Your task to perform on an android device: Turn on the flashlight Image 0: 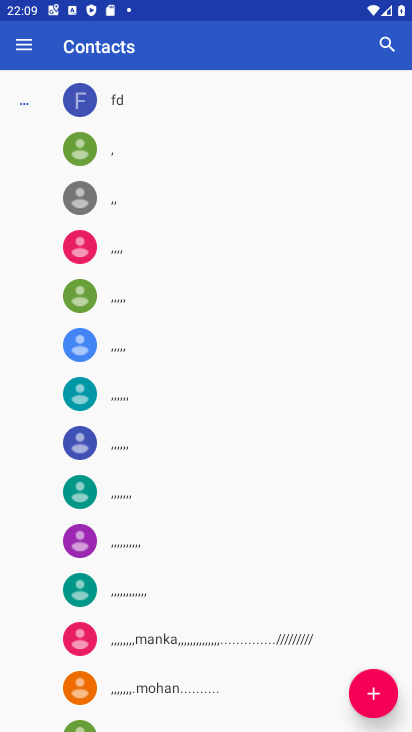
Step 0: press home button
Your task to perform on an android device: Turn on the flashlight Image 1: 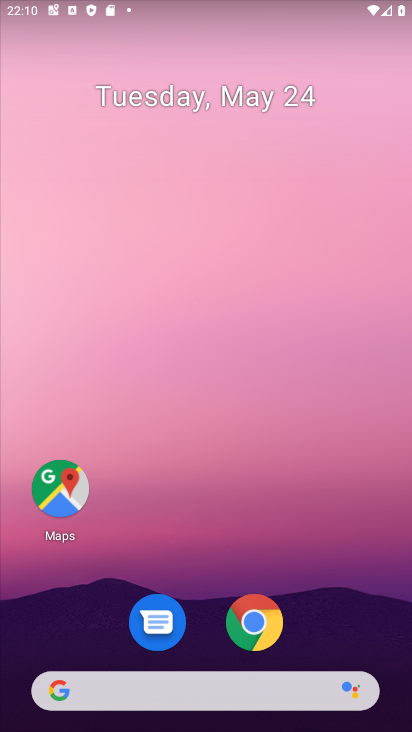
Step 1: drag from (256, 722) to (253, 192)
Your task to perform on an android device: Turn on the flashlight Image 2: 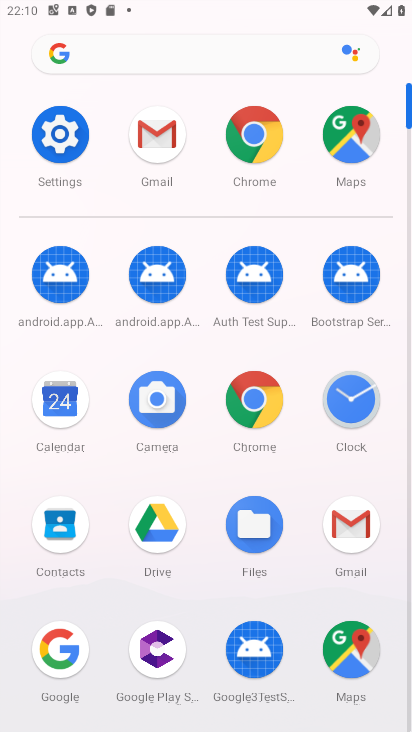
Step 2: click (71, 144)
Your task to perform on an android device: Turn on the flashlight Image 3: 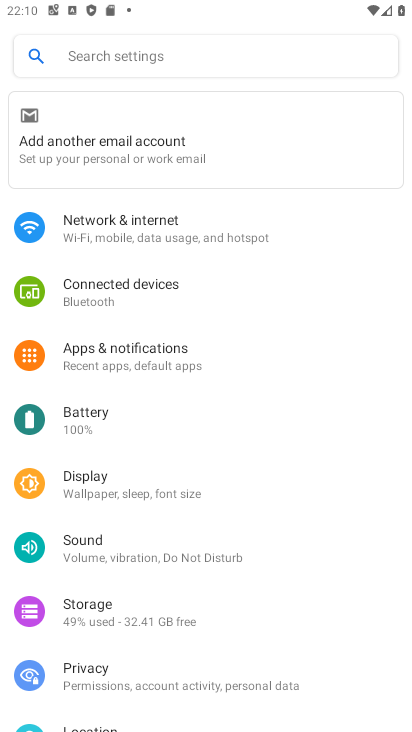
Step 3: click (128, 50)
Your task to perform on an android device: Turn on the flashlight Image 4: 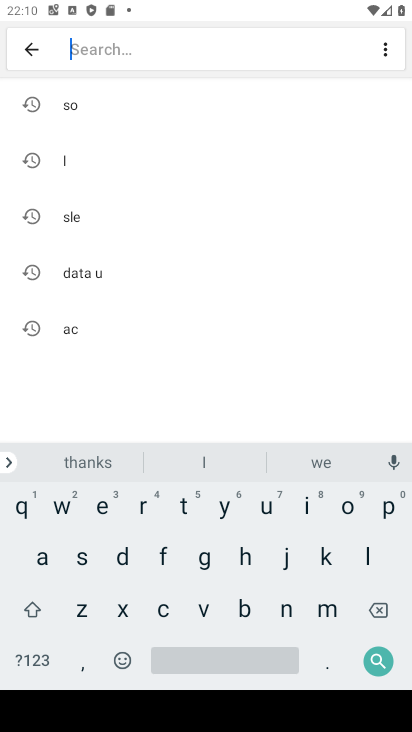
Step 4: click (160, 567)
Your task to perform on an android device: Turn on the flashlight Image 5: 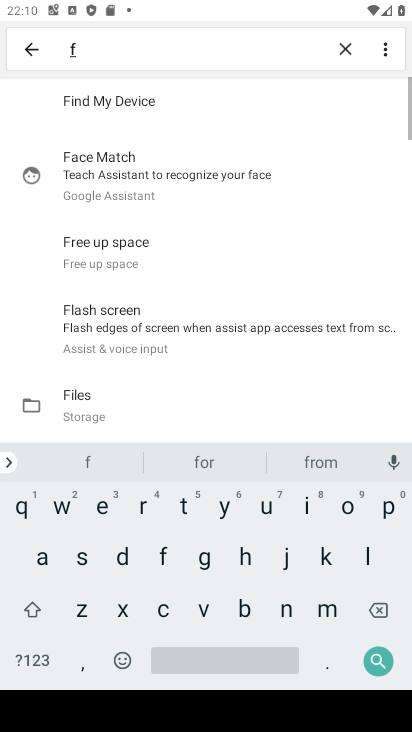
Step 5: click (364, 549)
Your task to perform on an android device: Turn on the flashlight Image 6: 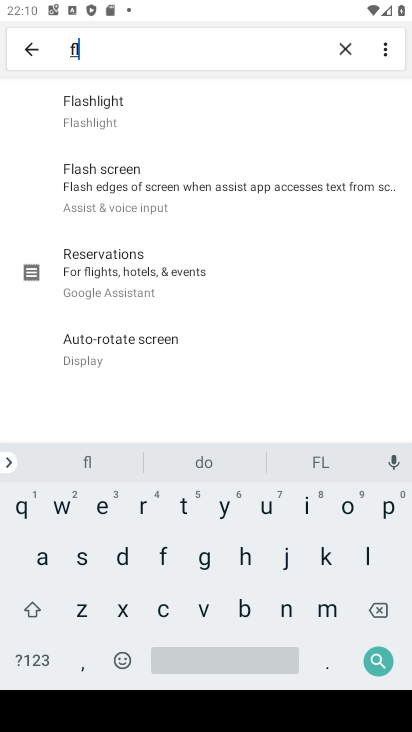
Step 6: click (169, 115)
Your task to perform on an android device: Turn on the flashlight Image 7: 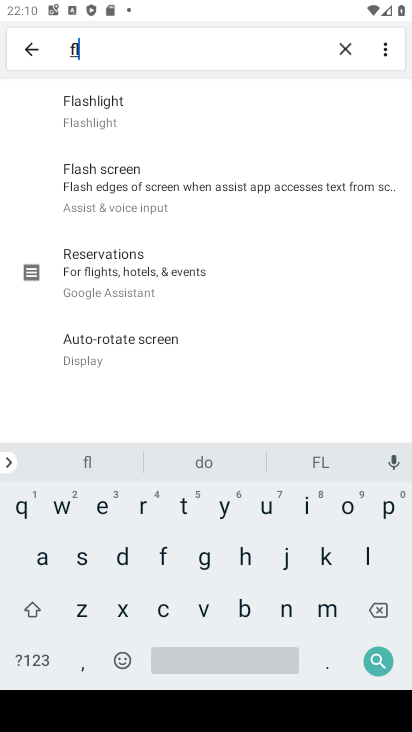
Step 7: click (155, 127)
Your task to perform on an android device: Turn on the flashlight Image 8: 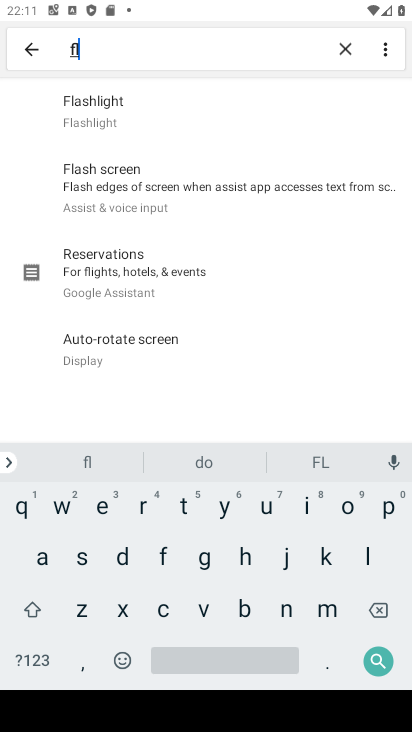
Step 8: task complete